Your task to perform on an android device: Open calendar and show me the second week of next month Image 0: 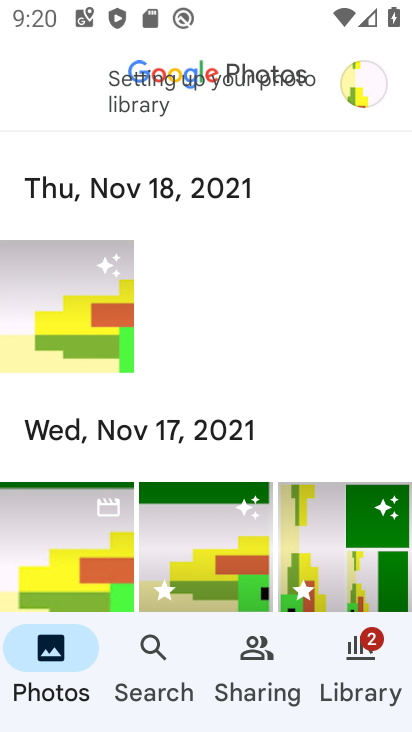
Step 0: press home button
Your task to perform on an android device: Open calendar and show me the second week of next month Image 1: 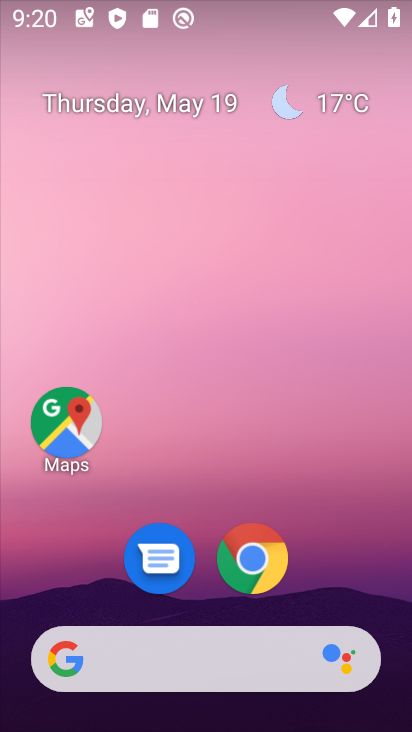
Step 1: drag from (196, 725) to (192, 182)
Your task to perform on an android device: Open calendar and show me the second week of next month Image 2: 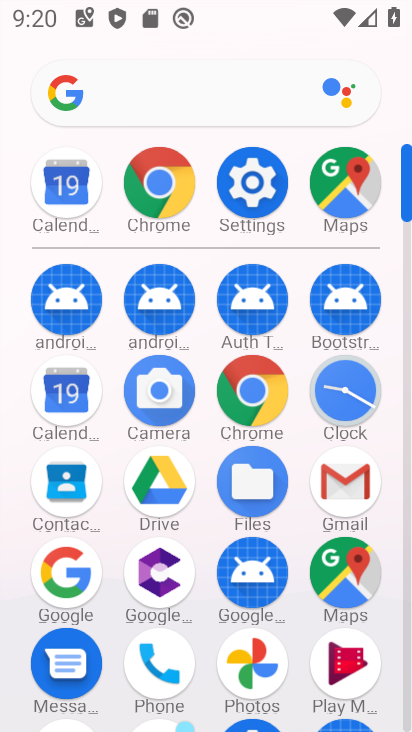
Step 2: click (68, 396)
Your task to perform on an android device: Open calendar and show me the second week of next month Image 3: 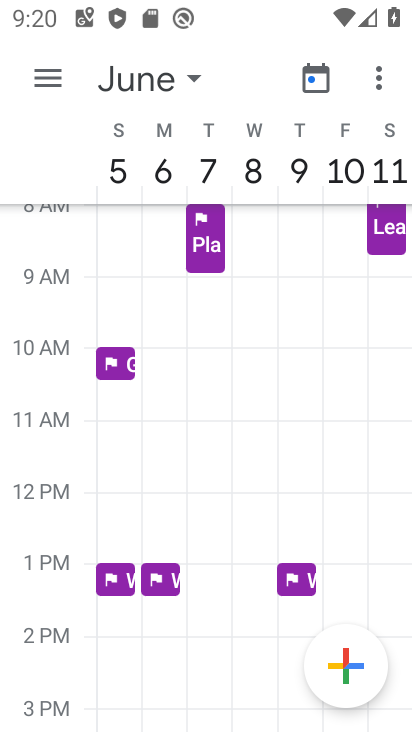
Step 3: click (191, 77)
Your task to perform on an android device: Open calendar and show me the second week of next month Image 4: 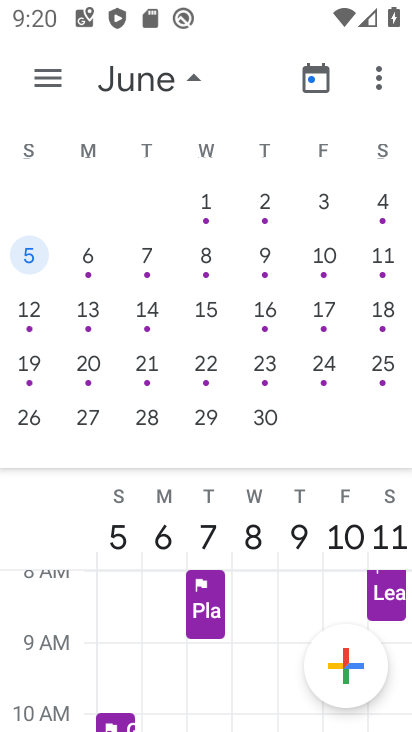
Step 4: click (86, 306)
Your task to perform on an android device: Open calendar and show me the second week of next month Image 5: 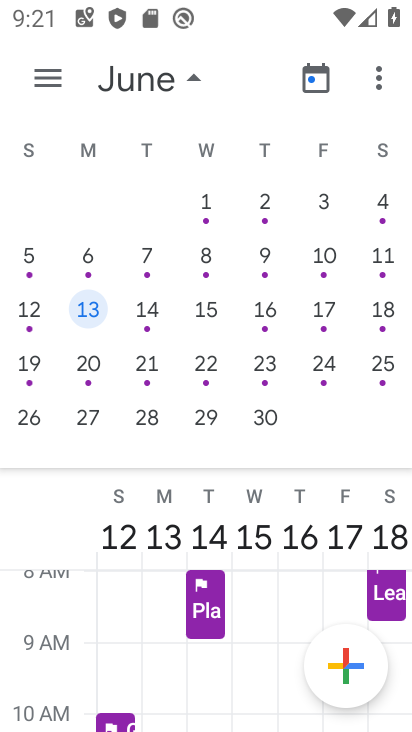
Step 5: click (86, 306)
Your task to perform on an android device: Open calendar and show me the second week of next month Image 6: 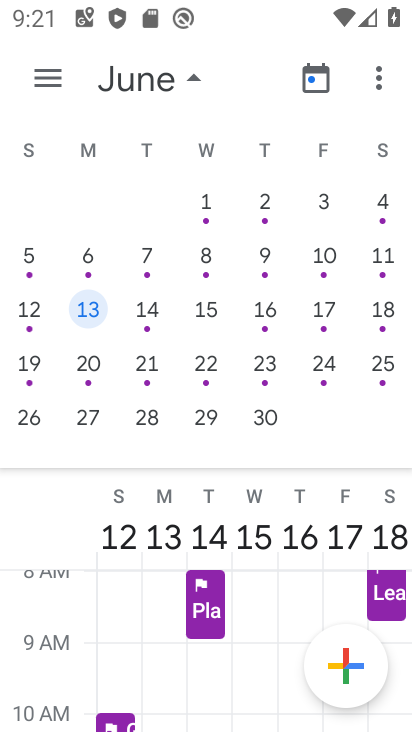
Step 6: task complete